Your task to perform on an android device: What is the capital of China? Image 0: 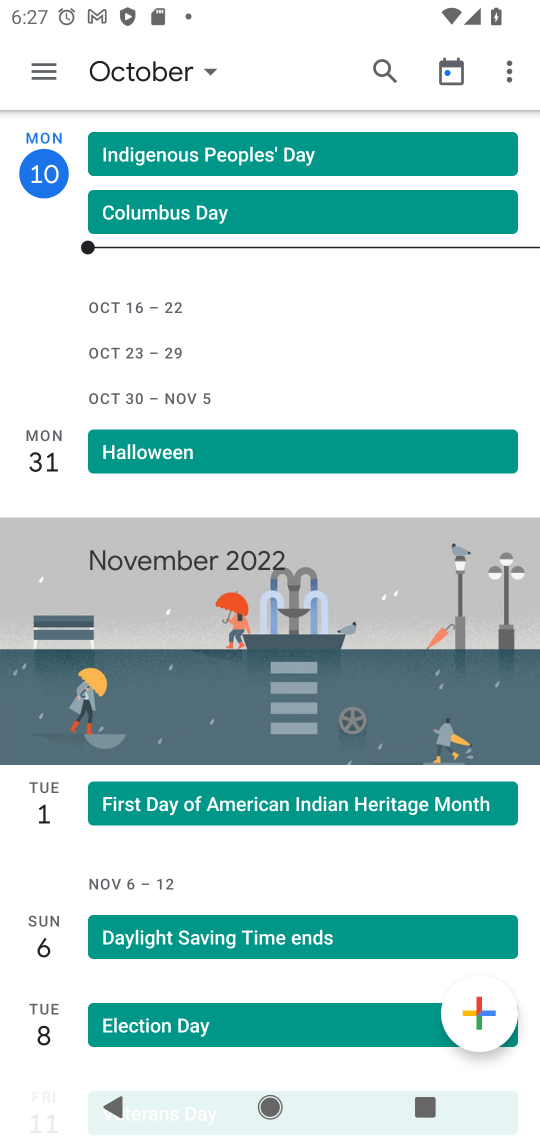
Step 0: press home button
Your task to perform on an android device: What is the capital of China? Image 1: 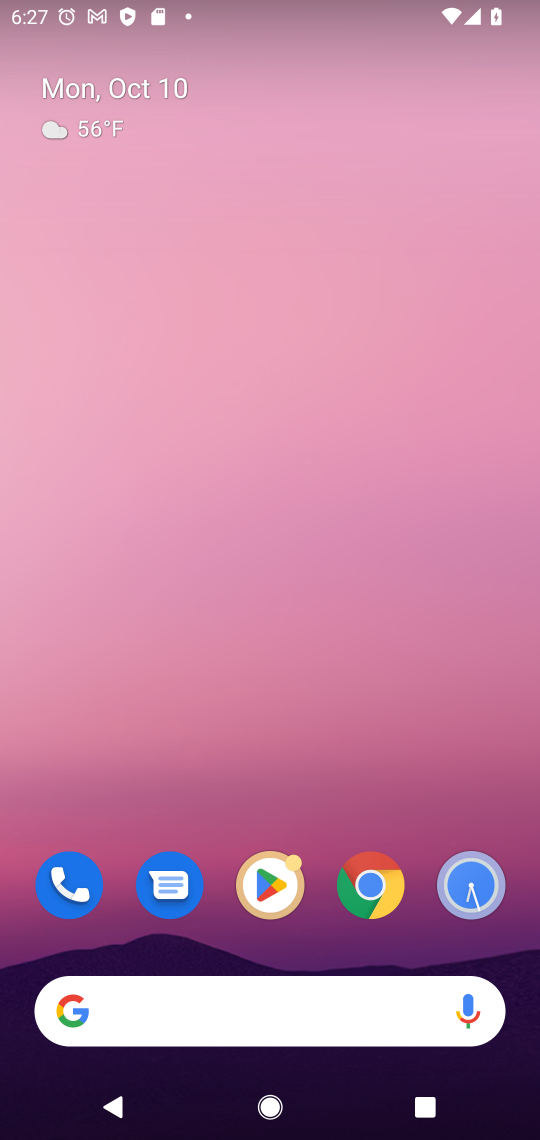
Step 1: click (284, 988)
Your task to perform on an android device: What is the capital of China? Image 2: 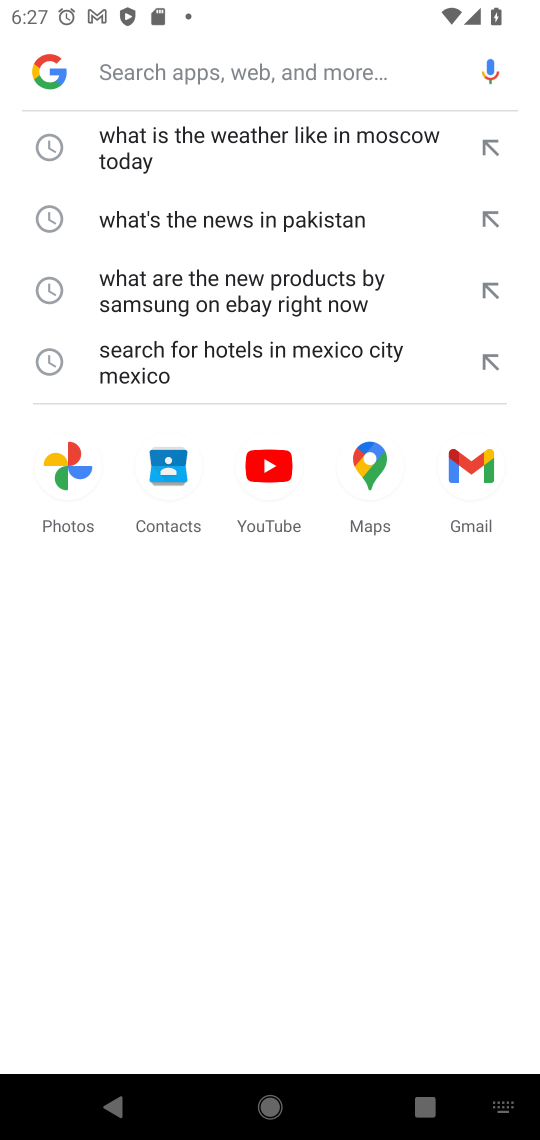
Step 2: type " capital of China?"
Your task to perform on an android device: What is the capital of China? Image 3: 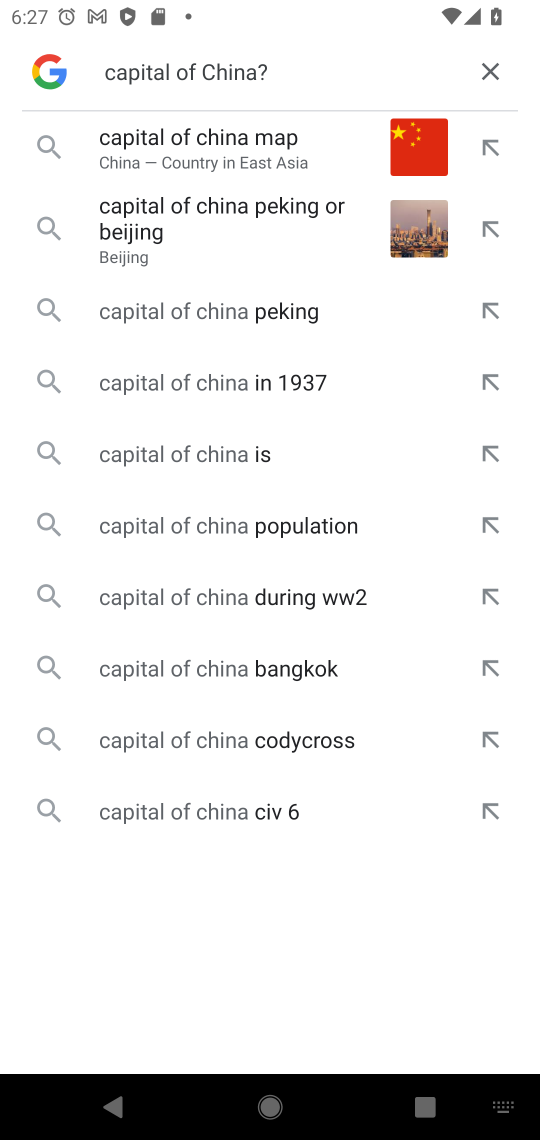
Step 3: click (178, 454)
Your task to perform on an android device: What is the capital of China? Image 4: 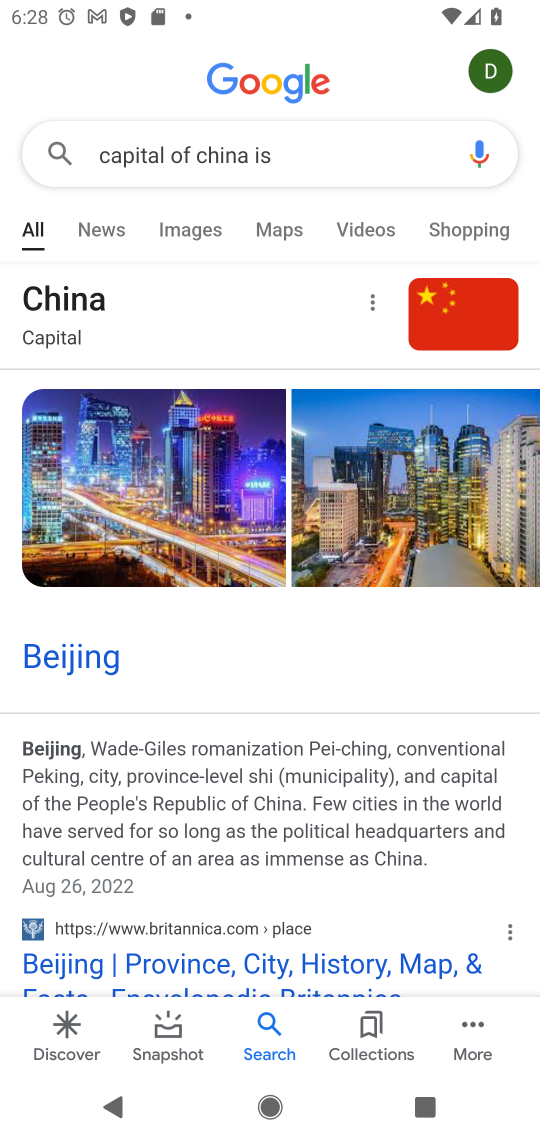
Step 4: task complete